Your task to perform on an android device: turn off priority inbox in the gmail app Image 0: 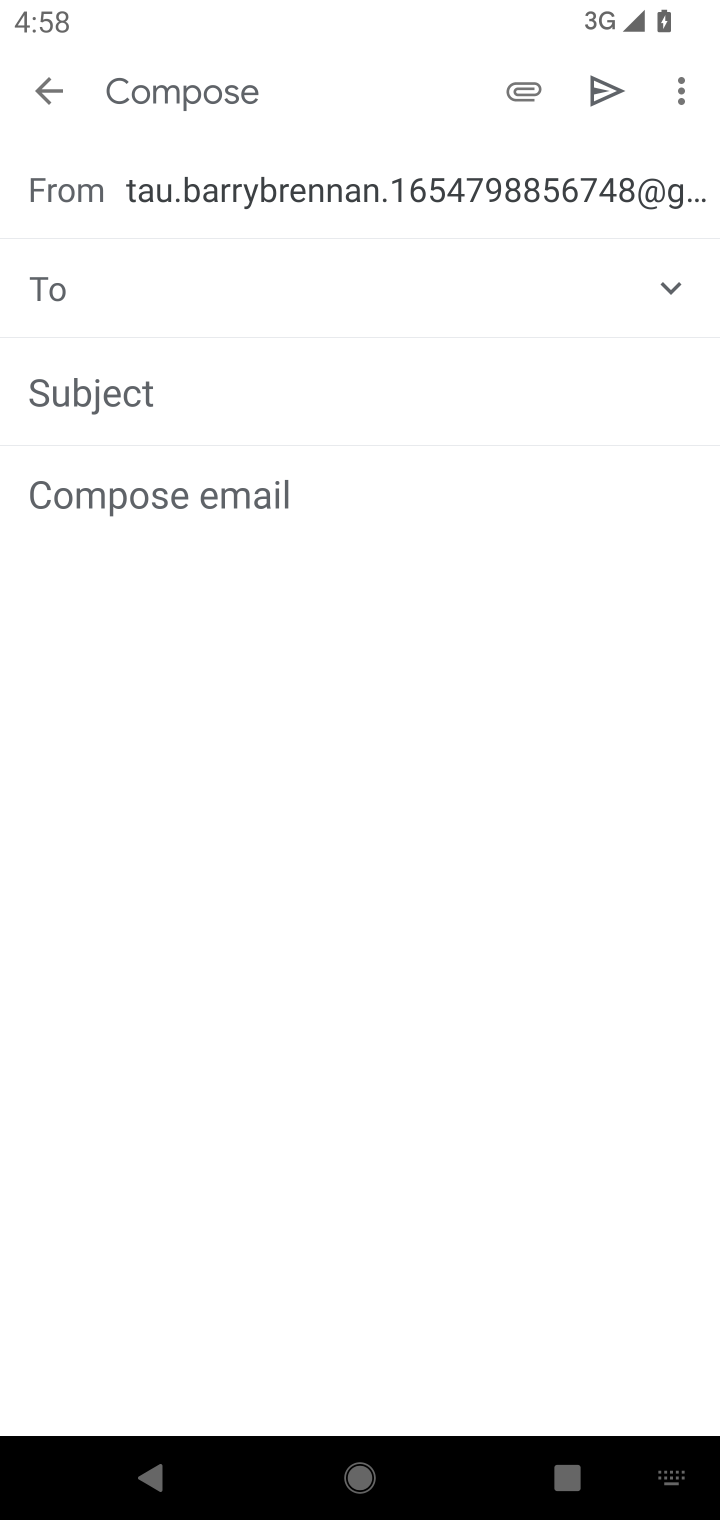
Step 0: press home button
Your task to perform on an android device: turn off priority inbox in the gmail app Image 1: 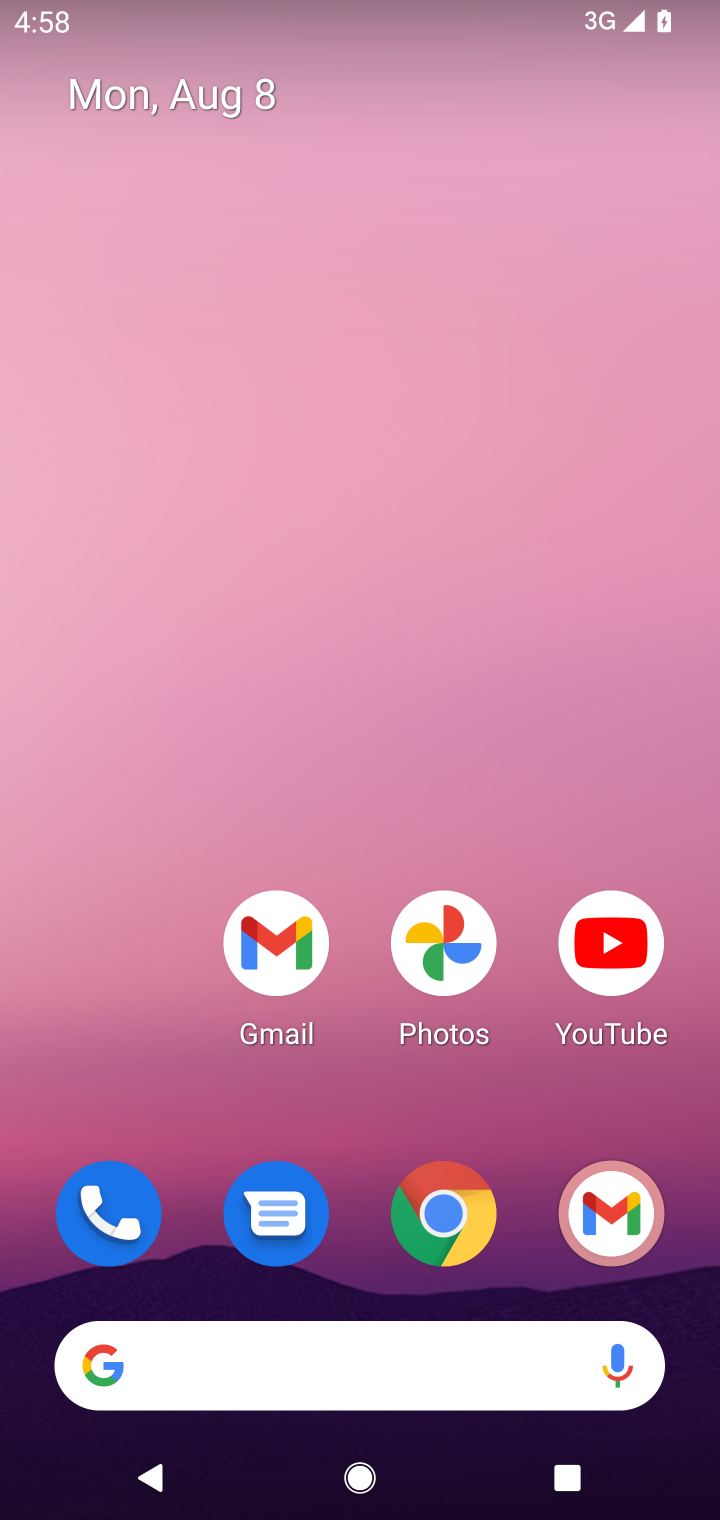
Step 1: click (262, 958)
Your task to perform on an android device: turn off priority inbox in the gmail app Image 2: 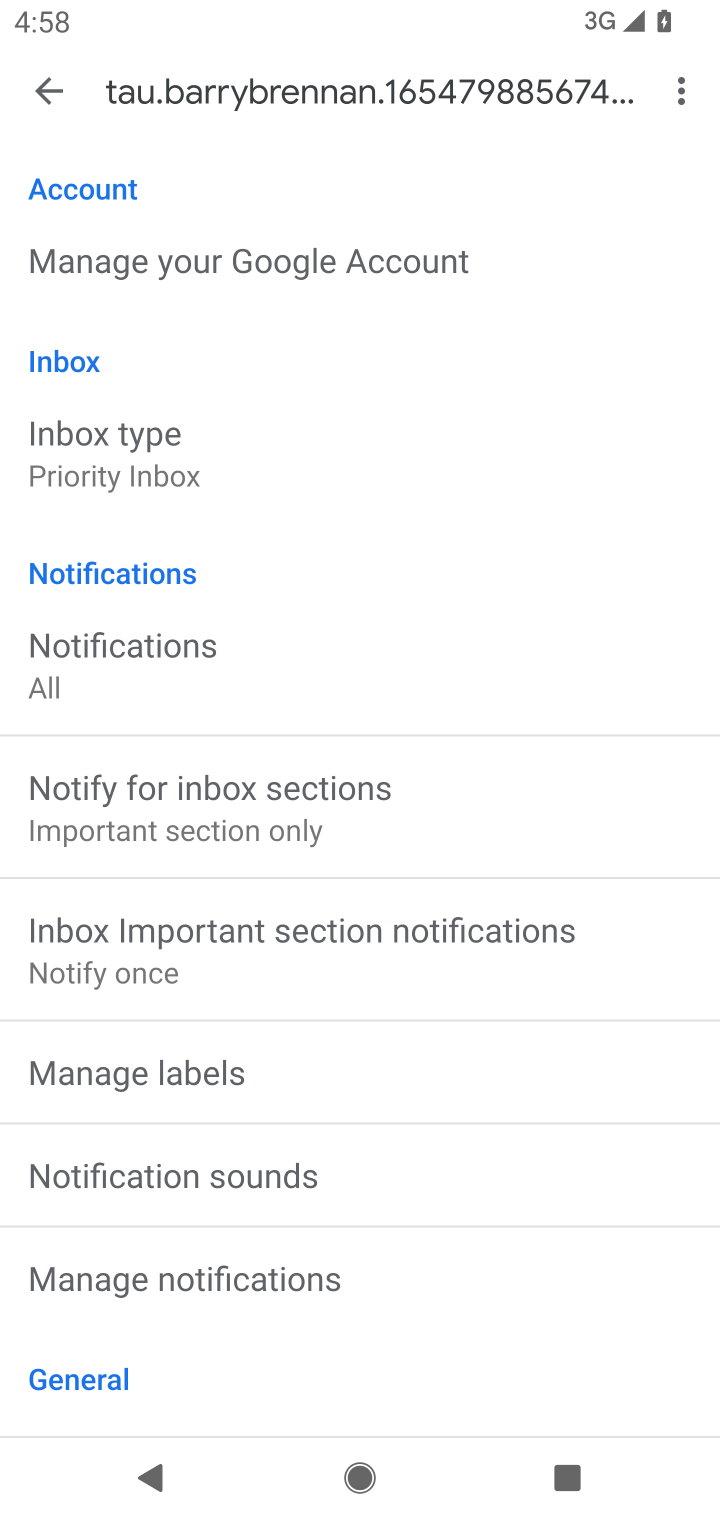
Step 2: click (133, 488)
Your task to perform on an android device: turn off priority inbox in the gmail app Image 3: 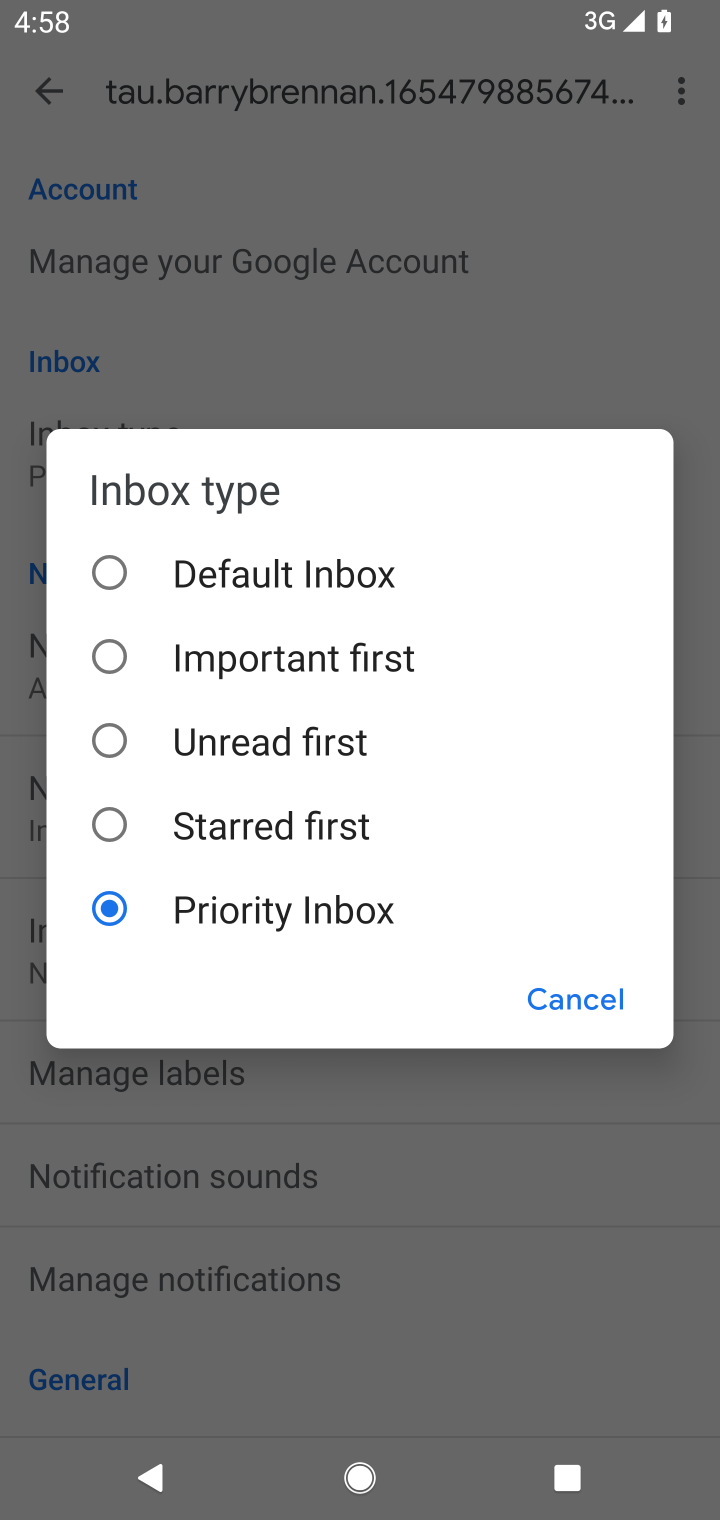
Step 3: click (251, 559)
Your task to perform on an android device: turn off priority inbox in the gmail app Image 4: 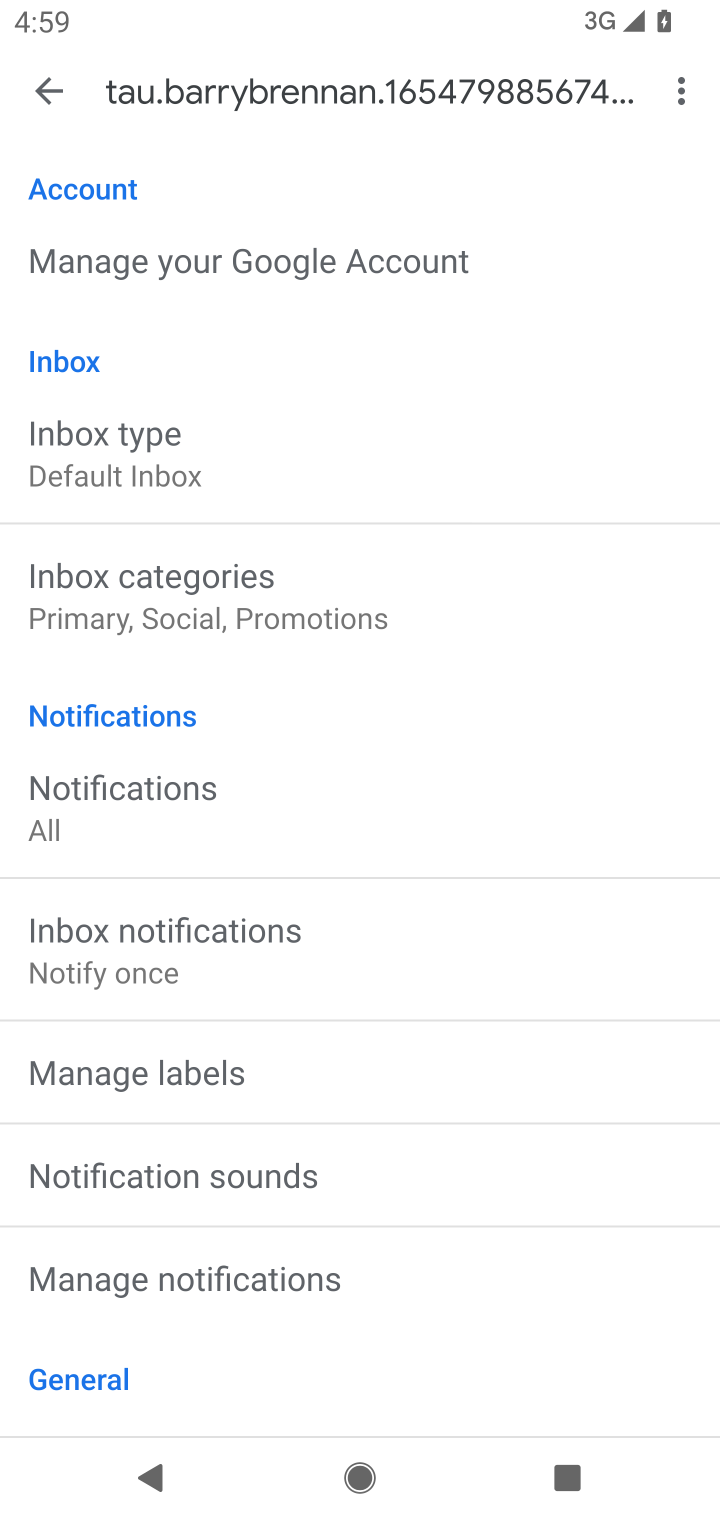
Step 4: task complete